Your task to perform on an android device: Open sound settings Image 0: 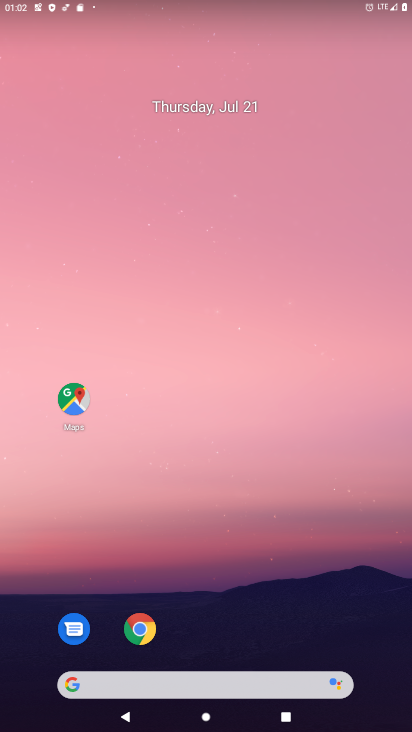
Step 0: drag from (276, 548) to (127, 121)
Your task to perform on an android device: Open sound settings Image 1: 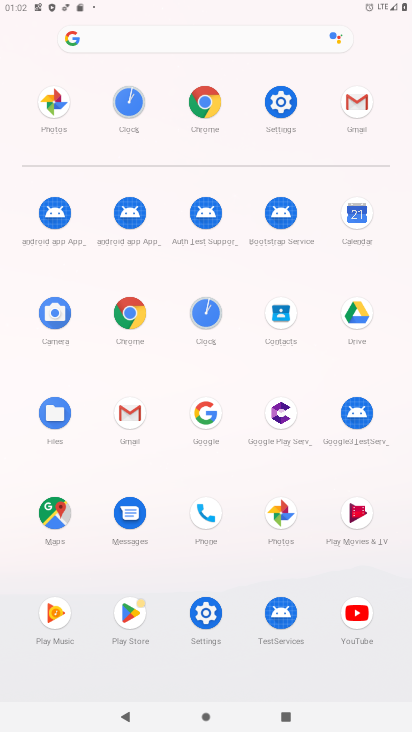
Step 1: click (281, 105)
Your task to perform on an android device: Open sound settings Image 2: 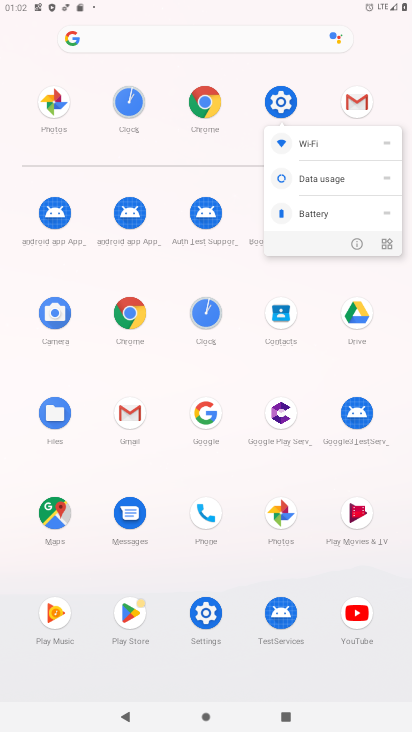
Step 2: click (280, 102)
Your task to perform on an android device: Open sound settings Image 3: 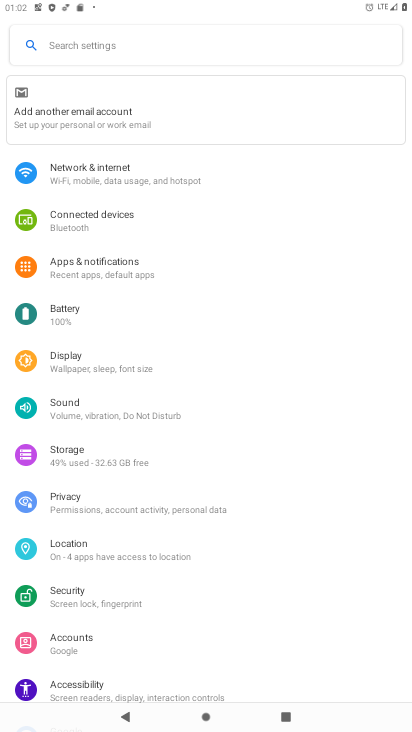
Step 3: click (89, 400)
Your task to perform on an android device: Open sound settings Image 4: 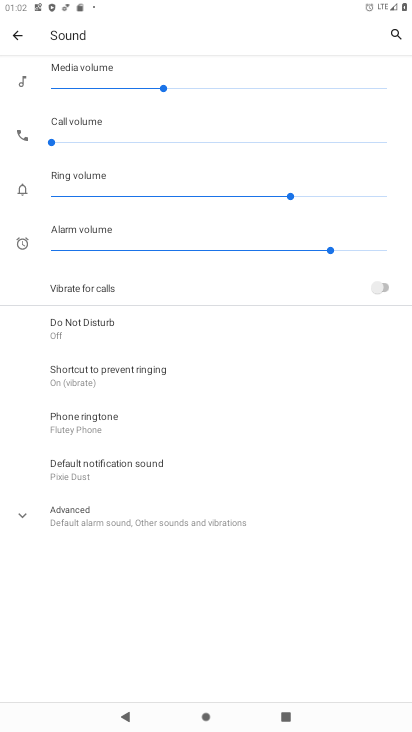
Step 4: click (328, 585)
Your task to perform on an android device: Open sound settings Image 5: 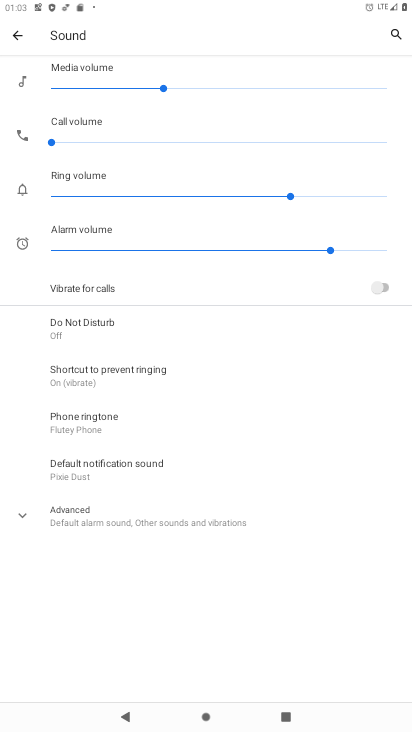
Step 5: task complete